Your task to perform on an android device: turn on notifications settings in the gmail app Image 0: 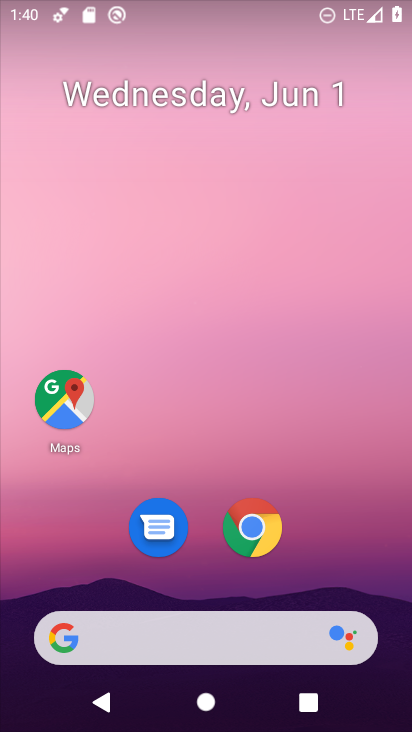
Step 0: drag from (143, 559) to (233, 170)
Your task to perform on an android device: turn on notifications settings in the gmail app Image 1: 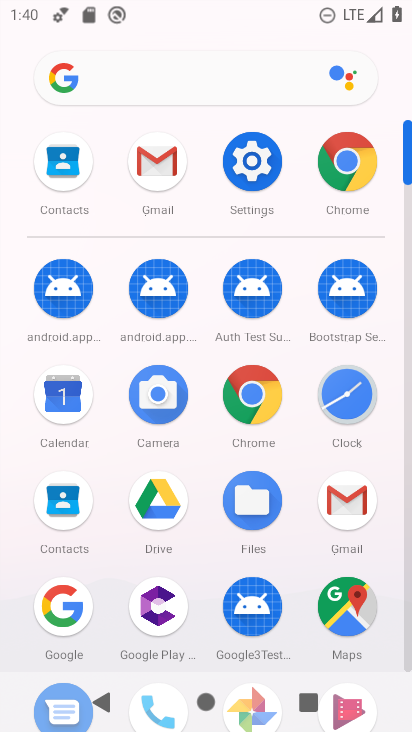
Step 1: click (148, 170)
Your task to perform on an android device: turn on notifications settings in the gmail app Image 2: 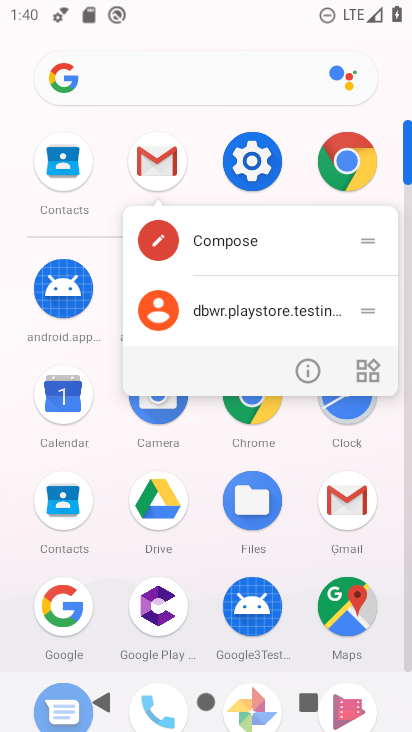
Step 2: click (314, 371)
Your task to perform on an android device: turn on notifications settings in the gmail app Image 3: 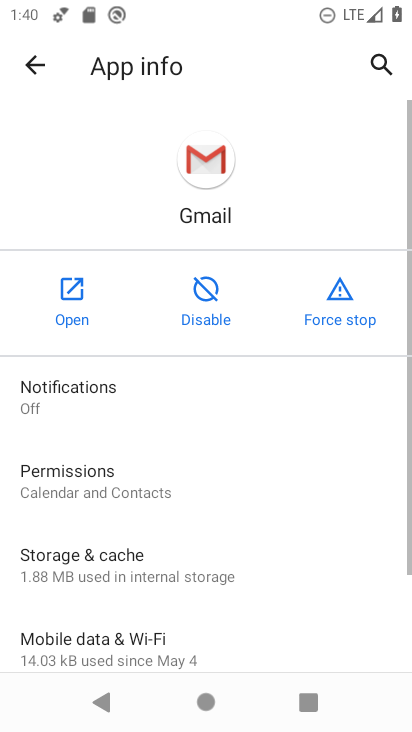
Step 3: click (67, 407)
Your task to perform on an android device: turn on notifications settings in the gmail app Image 4: 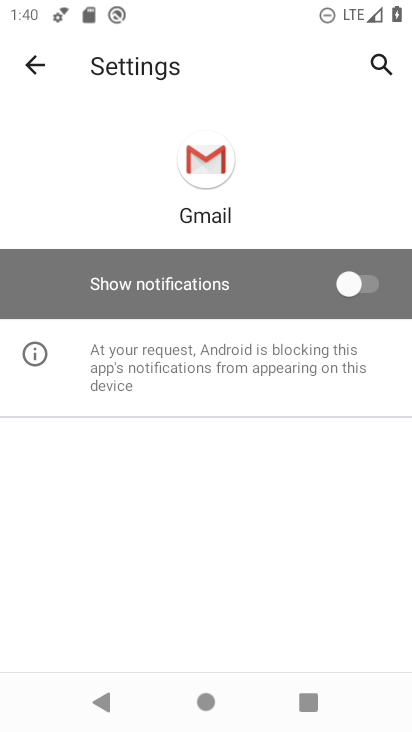
Step 4: click (368, 292)
Your task to perform on an android device: turn on notifications settings in the gmail app Image 5: 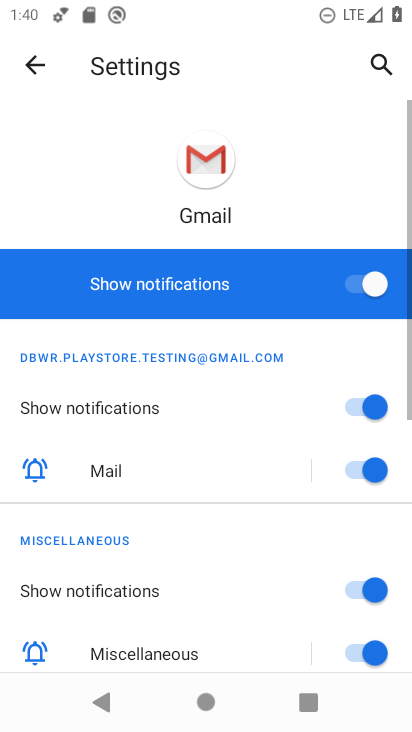
Step 5: task complete